Your task to perform on an android device: delete a single message in the gmail app Image 0: 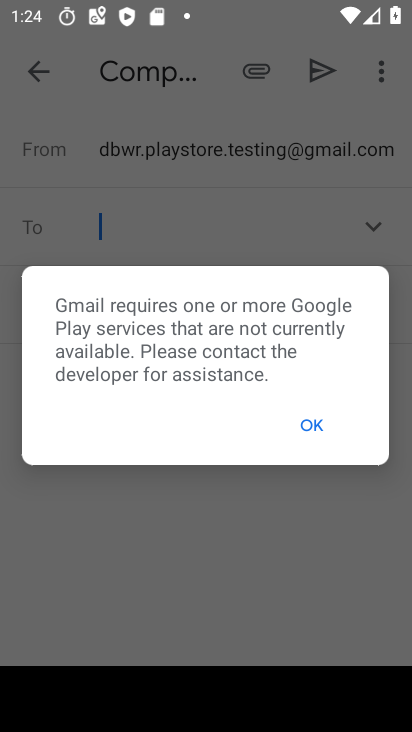
Step 0: press home button
Your task to perform on an android device: delete a single message in the gmail app Image 1: 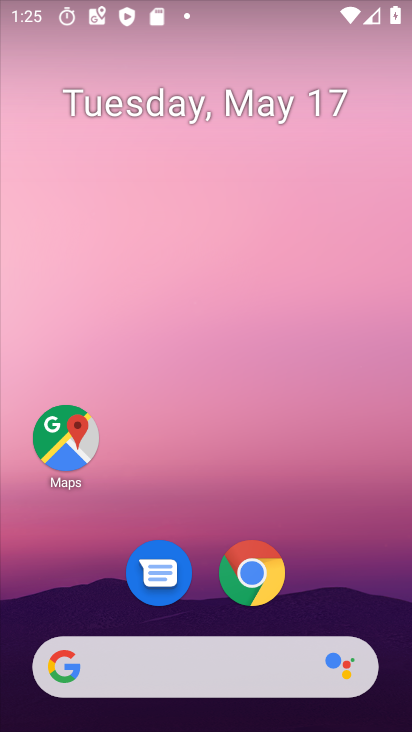
Step 1: drag from (107, 707) to (184, 30)
Your task to perform on an android device: delete a single message in the gmail app Image 2: 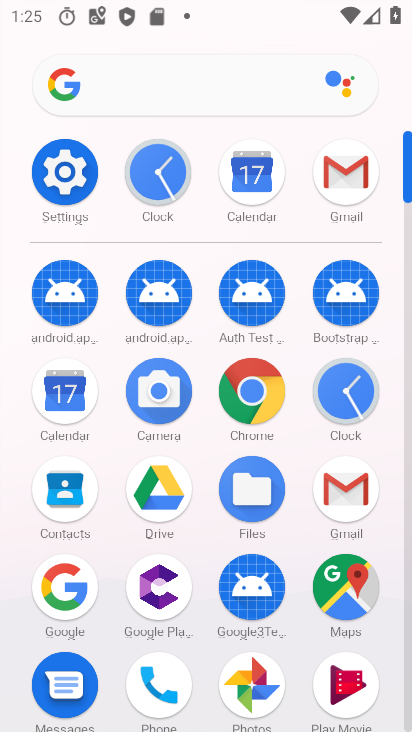
Step 2: click (360, 494)
Your task to perform on an android device: delete a single message in the gmail app Image 3: 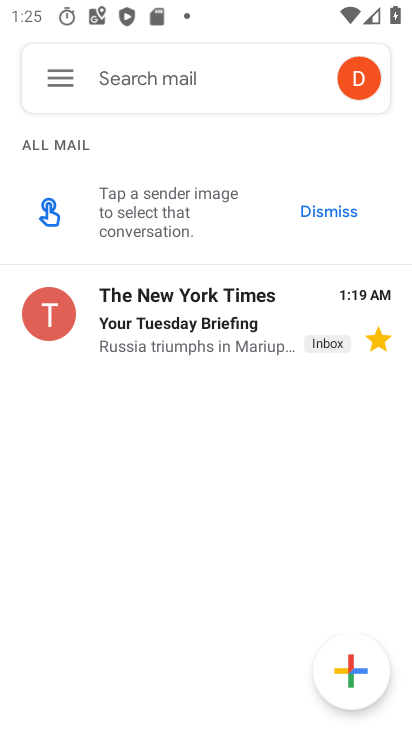
Step 3: click (248, 329)
Your task to perform on an android device: delete a single message in the gmail app Image 4: 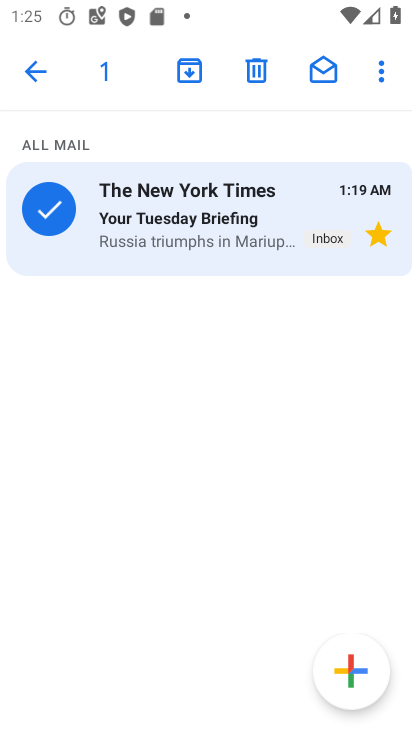
Step 4: click (256, 72)
Your task to perform on an android device: delete a single message in the gmail app Image 5: 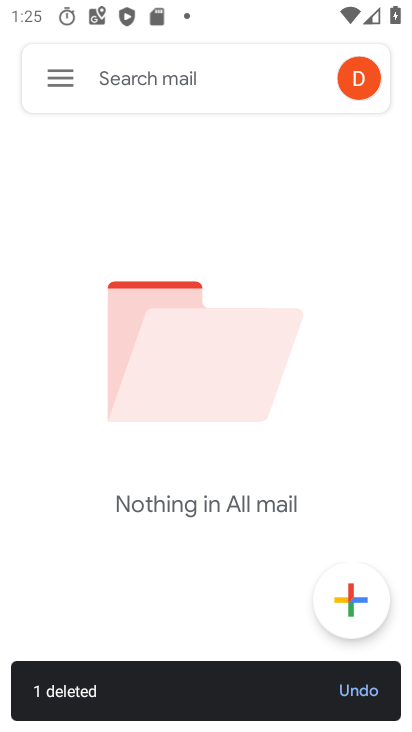
Step 5: task complete